Your task to perform on an android device: clear history in the chrome app Image 0: 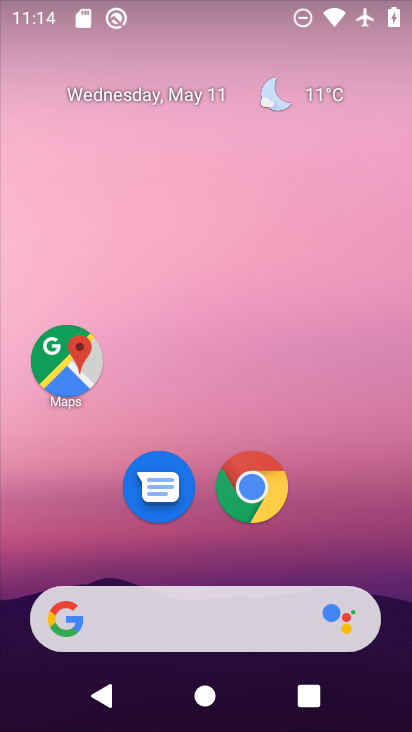
Step 0: drag from (339, 517) to (238, 4)
Your task to perform on an android device: clear history in the chrome app Image 1: 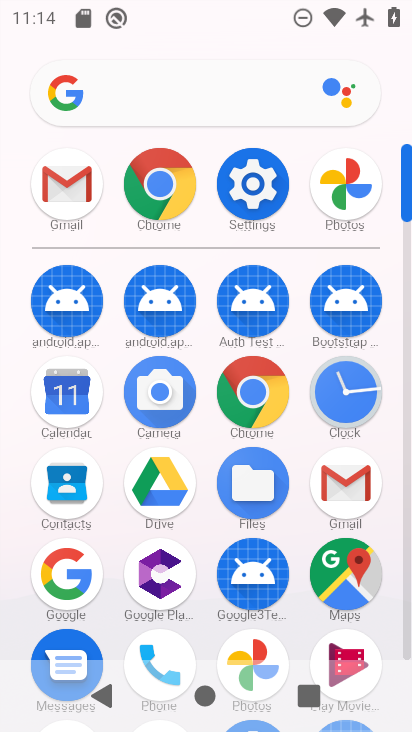
Step 1: drag from (12, 574) to (17, 260)
Your task to perform on an android device: clear history in the chrome app Image 2: 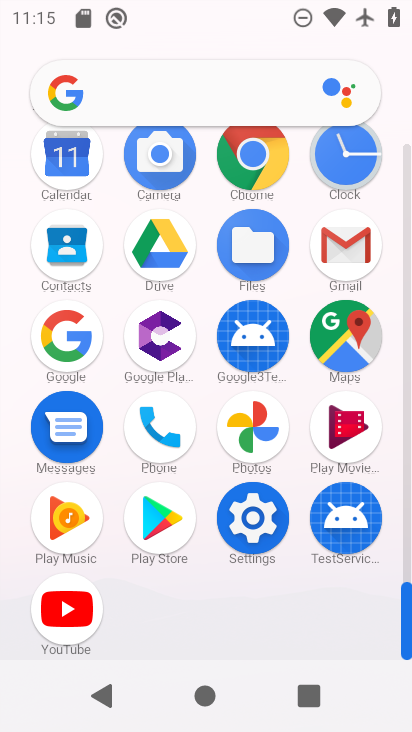
Step 2: click (246, 150)
Your task to perform on an android device: clear history in the chrome app Image 3: 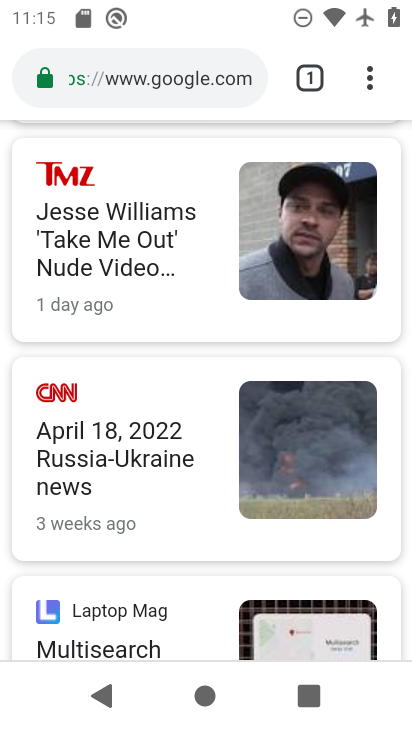
Step 3: drag from (371, 78) to (164, 429)
Your task to perform on an android device: clear history in the chrome app Image 4: 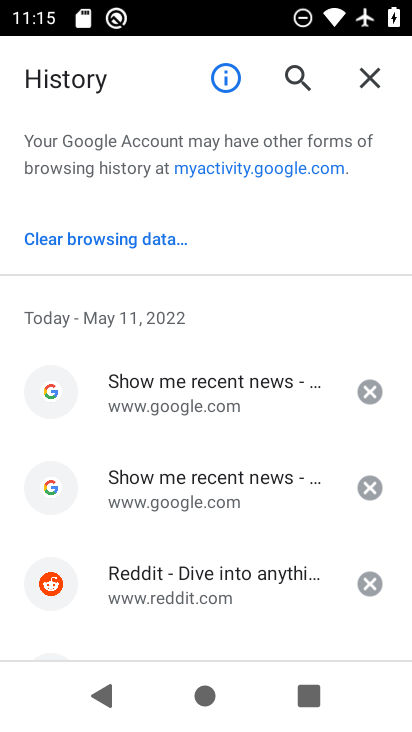
Step 4: click (118, 239)
Your task to perform on an android device: clear history in the chrome app Image 5: 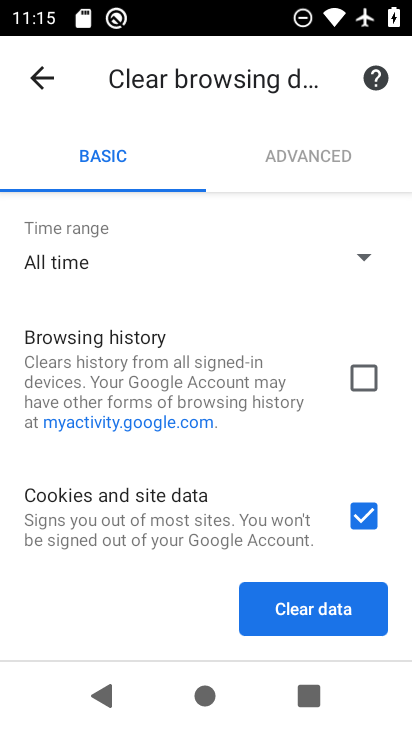
Step 5: click (363, 378)
Your task to perform on an android device: clear history in the chrome app Image 6: 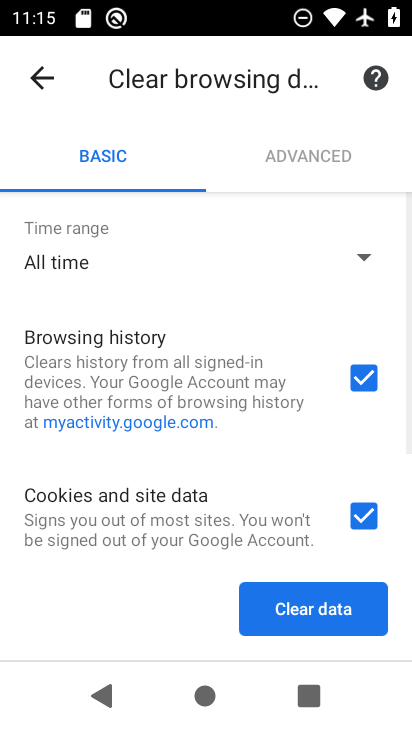
Step 6: click (314, 609)
Your task to perform on an android device: clear history in the chrome app Image 7: 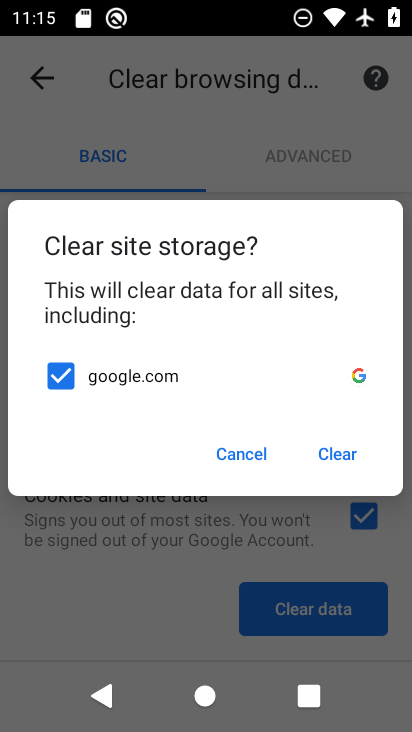
Step 7: click (339, 432)
Your task to perform on an android device: clear history in the chrome app Image 8: 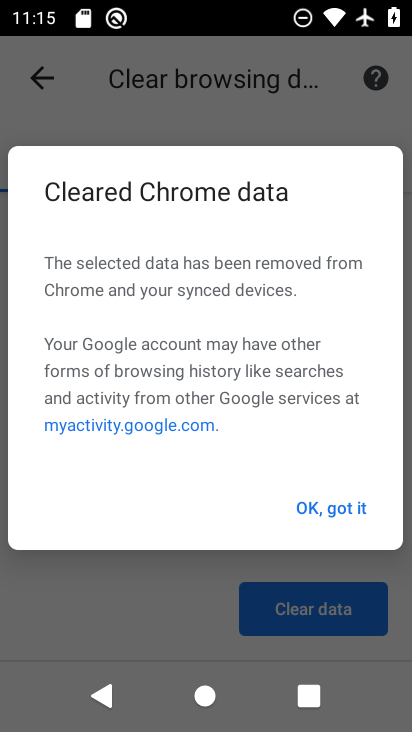
Step 8: click (321, 505)
Your task to perform on an android device: clear history in the chrome app Image 9: 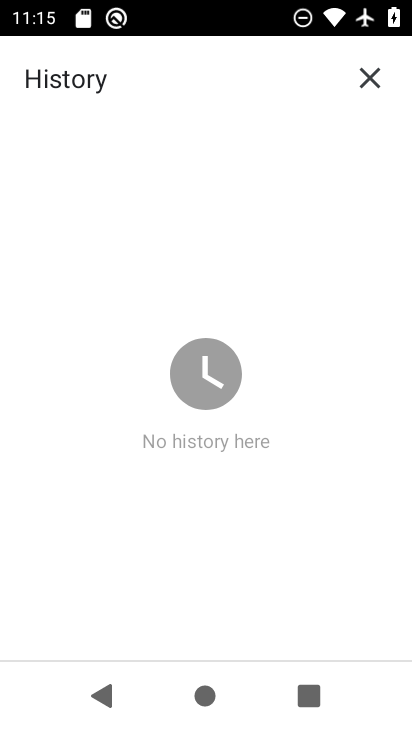
Step 9: task complete